Your task to perform on an android device: open chrome and create a bookmark for the current page Image 0: 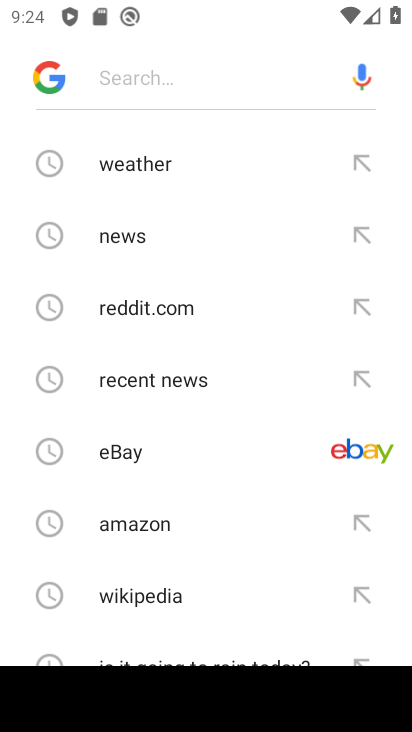
Step 0: press back button
Your task to perform on an android device: open chrome and create a bookmark for the current page Image 1: 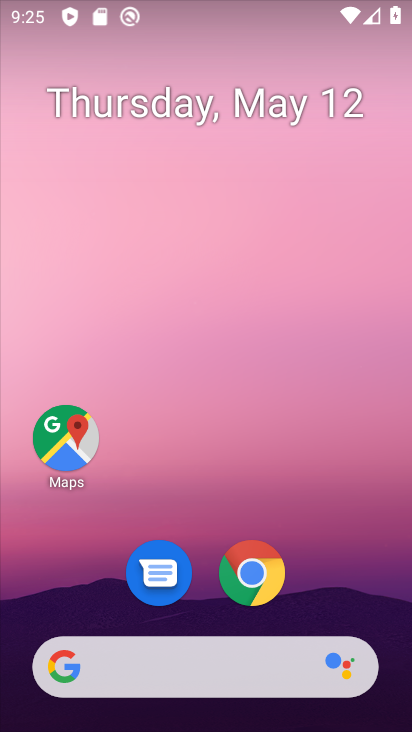
Step 1: click (251, 575)
Your task to perform on an android device: open chrome and create a bookmark for the current page Image 2: 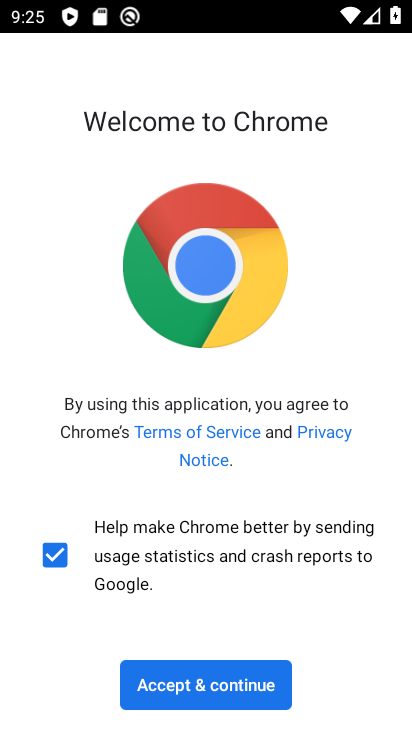
Step 2: click (222, 681)
Your task to perform on an android device: open chrome and create a bookmark for the current page Image 3: 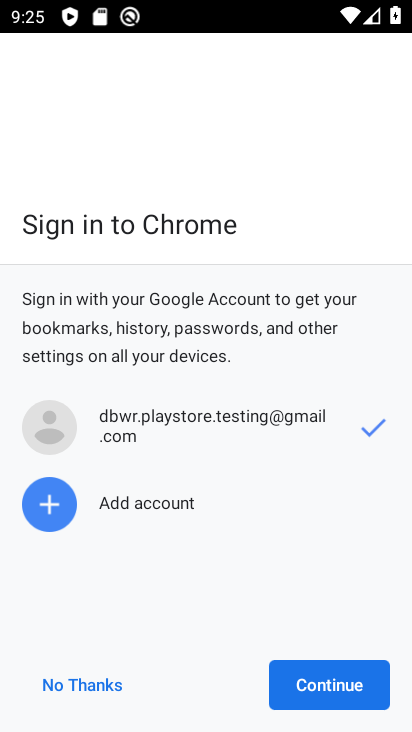
Step 3: click (327, 688)
Your task to perform on an android device: open chrome and create a bookmark for the current page Image 4: 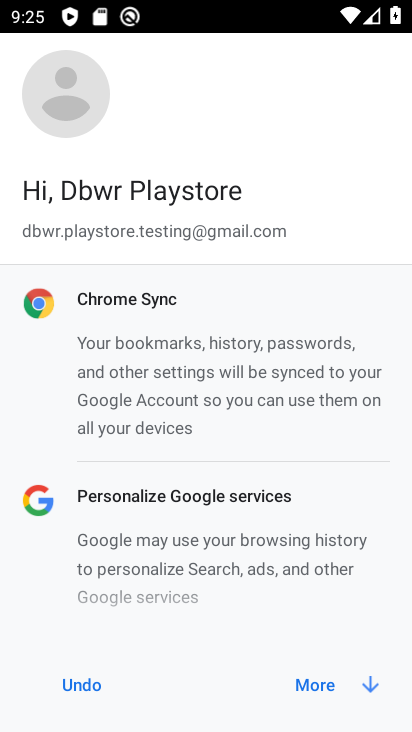
Step 4: click (327, 688)
Your task to perform on an android device: open chrome and create a bookmark for the current page Image 5: 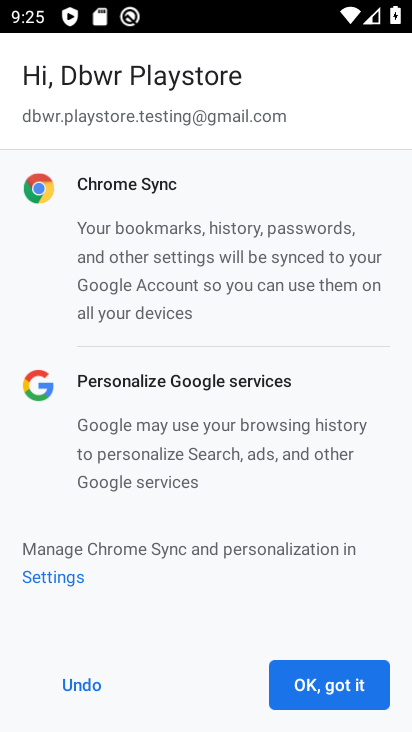
Step 5: click (327, 688)
Your task to perform on an android device: open chrome and create a bookmark for the current page Image 6: 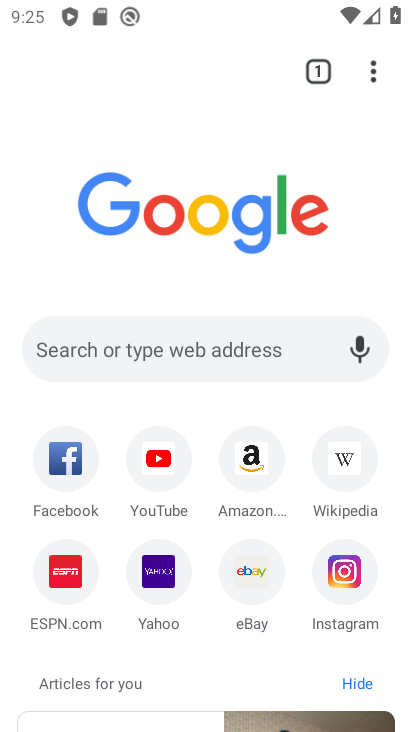
Step 6: click (370, 69)
Your task to perform on an android device: open chrome and create a bookmark for the current page Image 7: 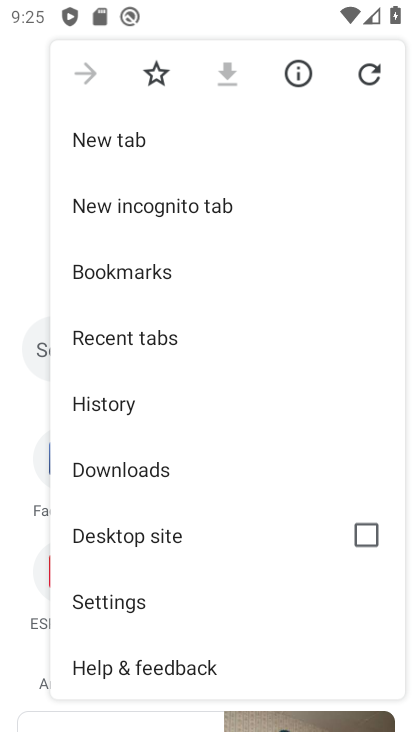
Step 7: click (153, 76)
Your task to perform on an android device: open chrome and create a bookmark for the current page Image 8: 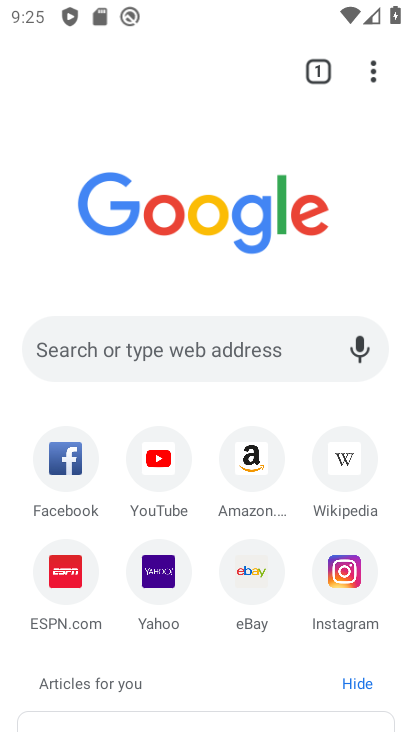
Step 8: task complete